Your task to perform on an android device: change the upload size in google photos Image 0: 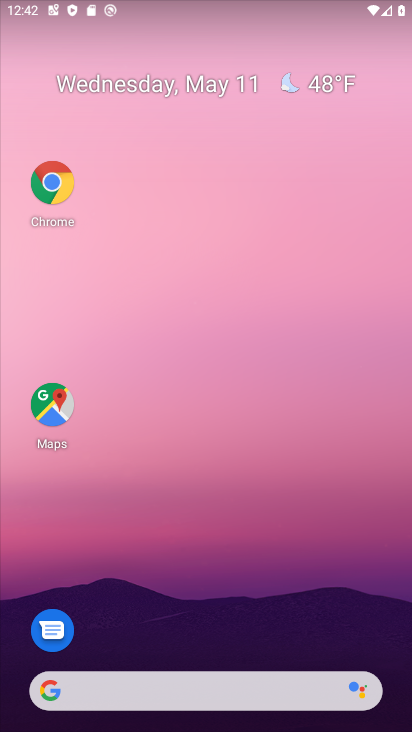
Step 0: click (99, 83)
Your task to perform on an android device: change the upload size in google photos Image 1: 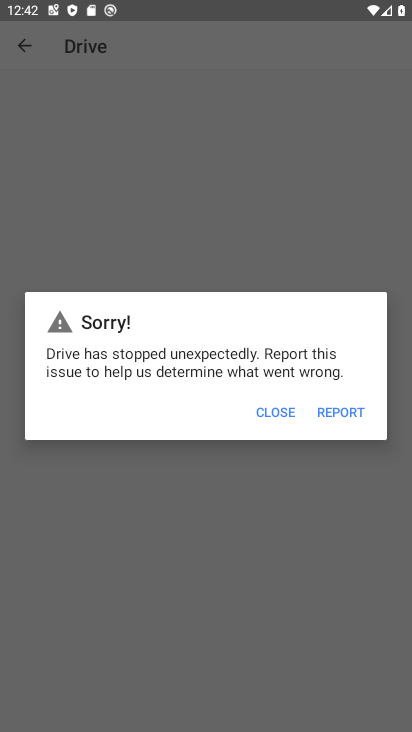
Step 1: press home button
Your task to perform on an android device: change the upload size in google photos Image 2: 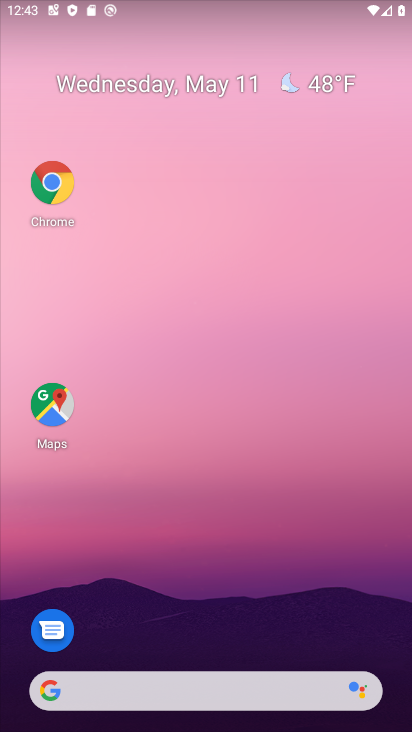
Step 2: drag from (214, 664) to (80, 12)
Your task to perform on an android device: change the upload size in google photos Image 3: 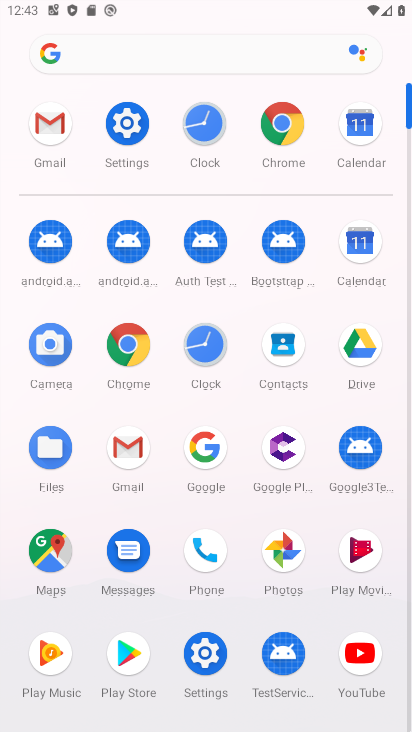
Step 3: click (268, 545)
Your task to perform on an android device: change the upload size in google photos Image 4: 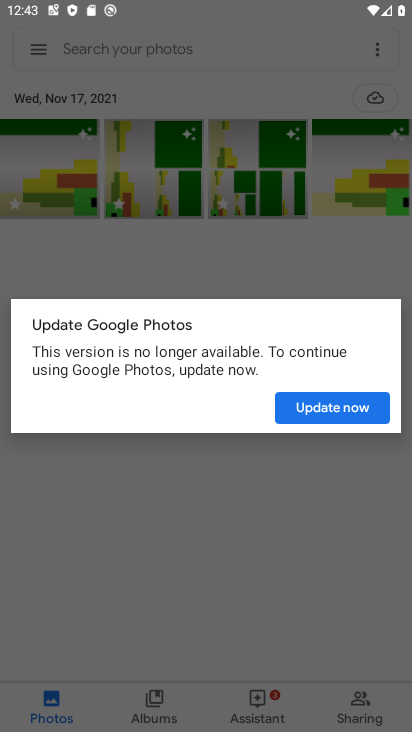
Step 4: click (326, 404)
Your task to perform on an android device: change the upload size in google photos Image 5: 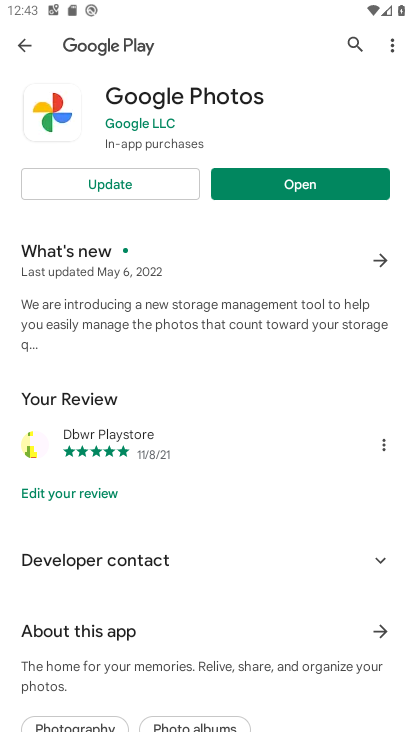
Step 5: click (162, 175)
Your task to perform on an android device: change the upload size in google photos Image 6: 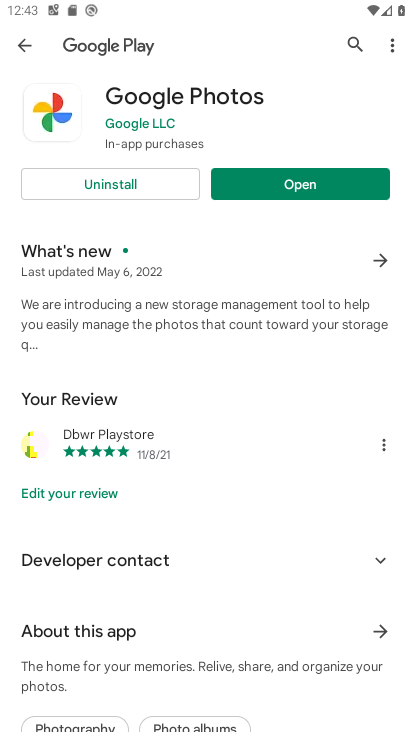
Step 6: click (265, 188)
Your task to perform on an android device: change the upload size in google photos Image 7: 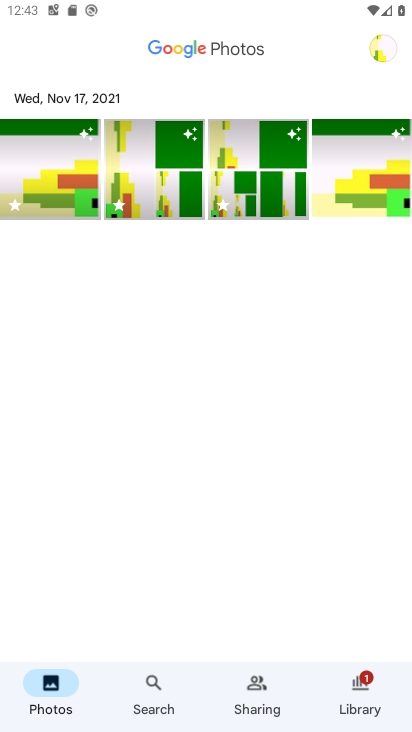
Step 7: click (364, 53)
Your task to perform on an android device: change the upload size in google photos Image 8: 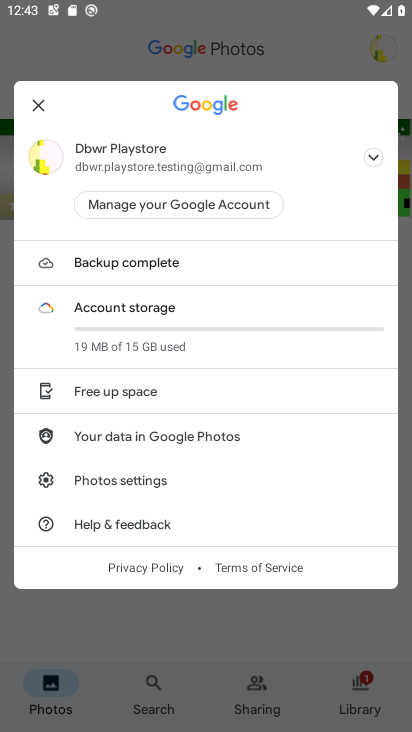
Step 8: click (108, 470)
Your task to perform on an android device: change the upload size in google photos Image 9: 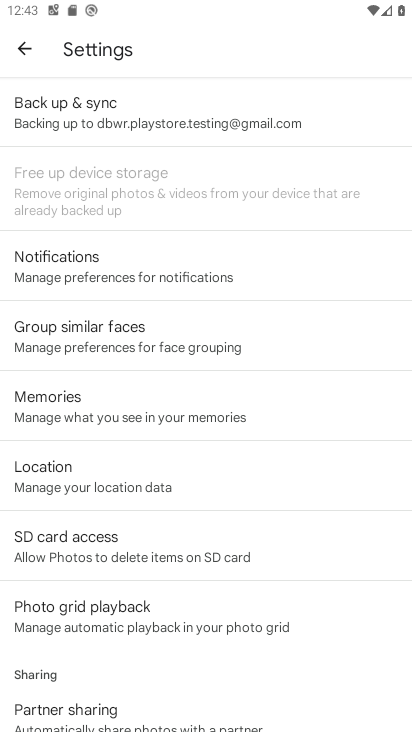
Step 9: click (100, 127)
Your task to perform on an android device: change the upload size in google photos Image 10: 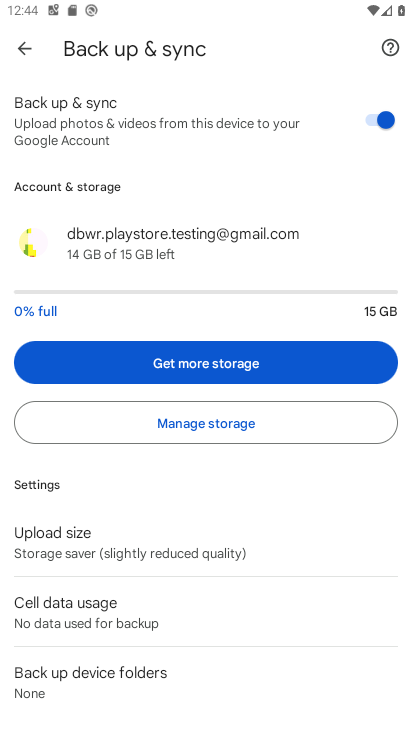
Step 10: click (61, 540)
Your task to perform on an android device: change the upload size in google photos Image 11: 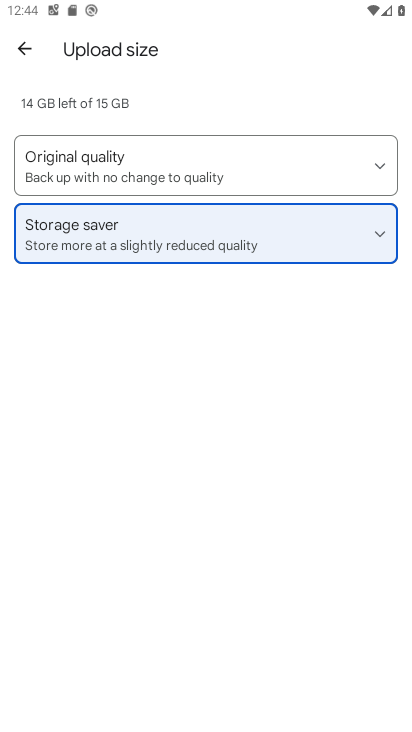
Step 11: click (170, 181)
Your task to perform on an android device: change the upload size in google photos Image 12: 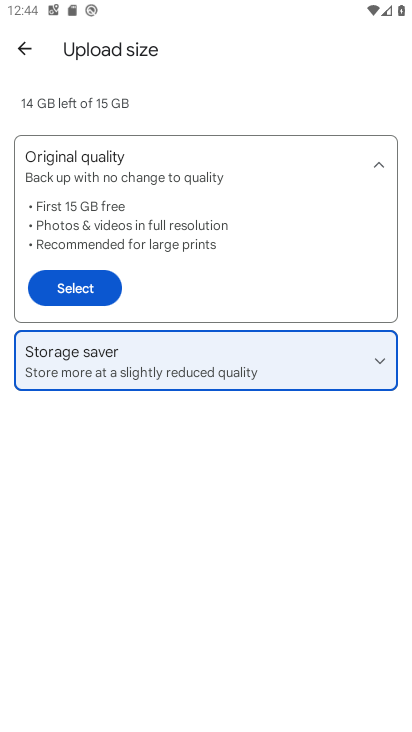
Step 12: click (70, 292)
Your task to perform on an android device: change the upload size in google photos Image 13: 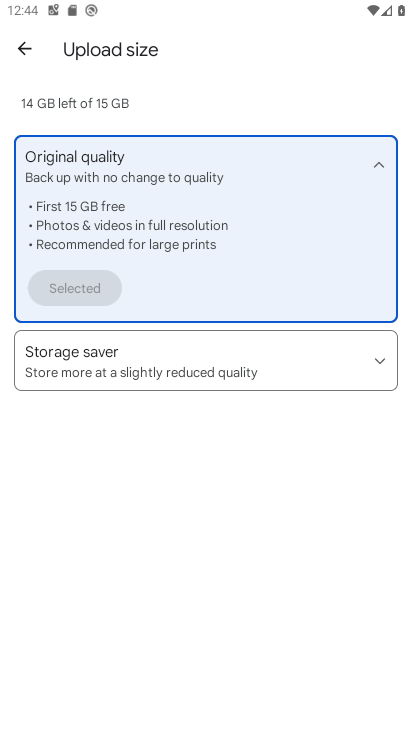
Step 13: task complete